Your task to perform on an android device: Open settings on Google Maps Image 0: 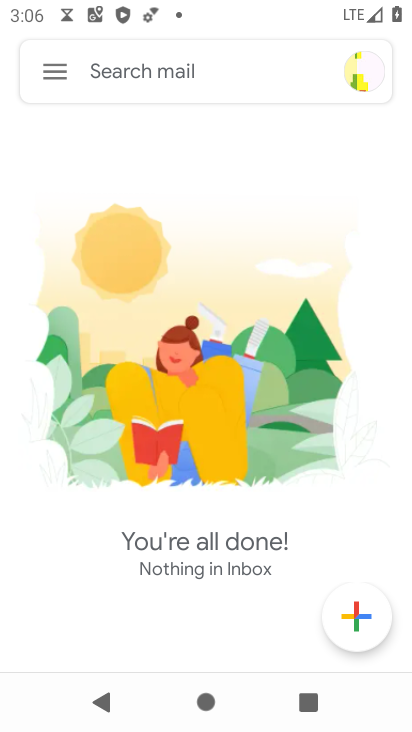
Step 0: press home button
Your task to perform on an android device: Open settings on Google Maps Image 1: 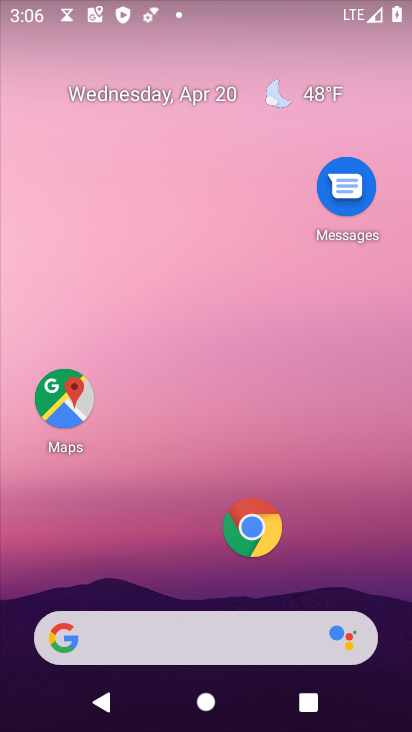
Step 1: drag from (140, 643) to (340, 18)
Your task to perform on an android device: Open settings on Google Maps Image 2: 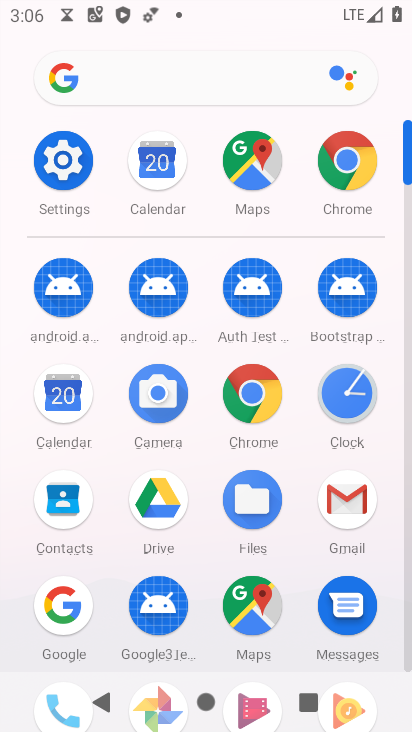
Step 2: click (254, 177)
Your task to perform on an android device: Open settings on Google Maps Image 3: 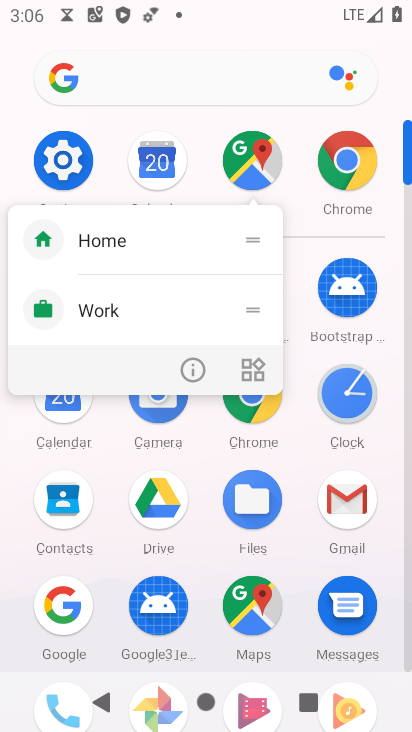
Step 3: click (250, 159)
Your task to perform on an android device: Open settings on Google Maps Image 4: 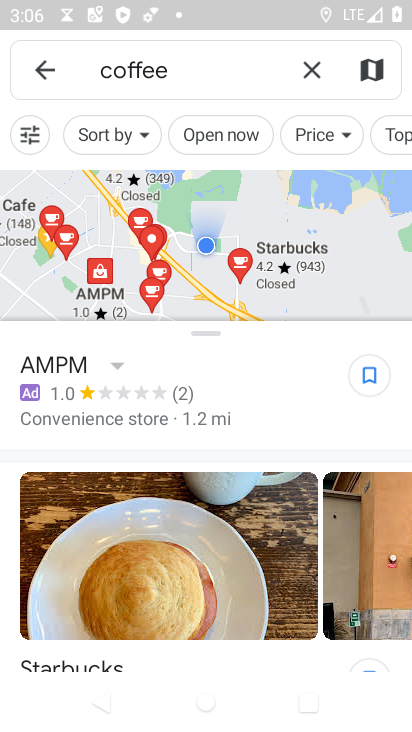
Step 4: click (48, 66)
Your task to perform on an android device: Open settings on Google Maps Image 5: 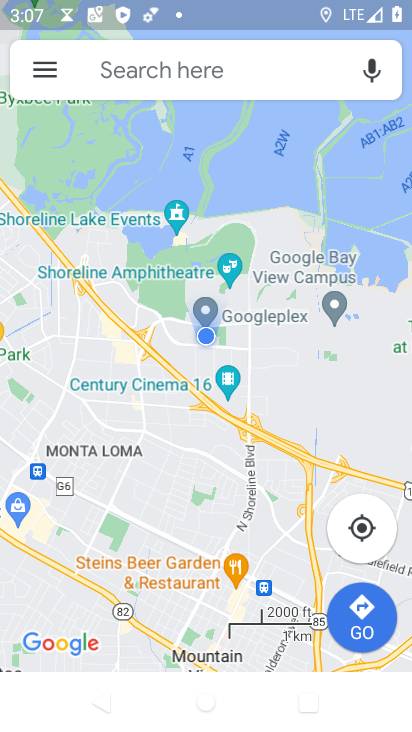
Step 5: click (47, 69)
Your task to perform on an android device: Open settings on Google Maps Image 6: 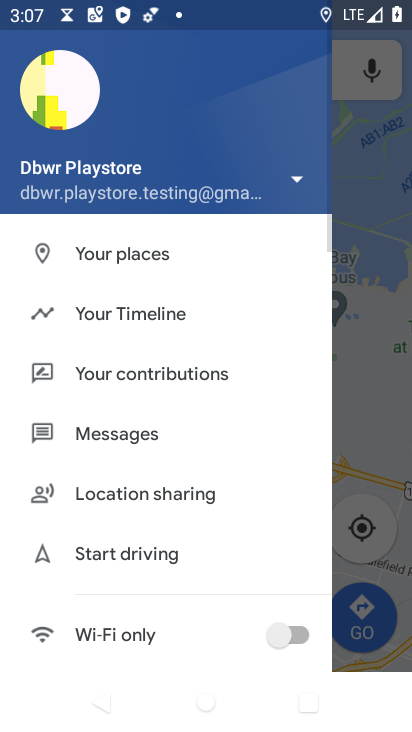
Step 6: drag from (142, 603) to (279, 187)
Your task to perform on an android device: Open settings on Google Maps Image 7: 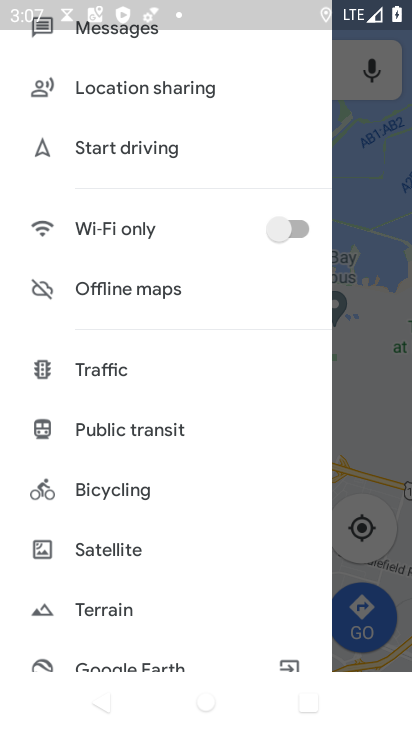
Step 7: drag from (158, 600) to (255, 199)
Your task to perform on an android device: Open settings on Google Maps Image 8: 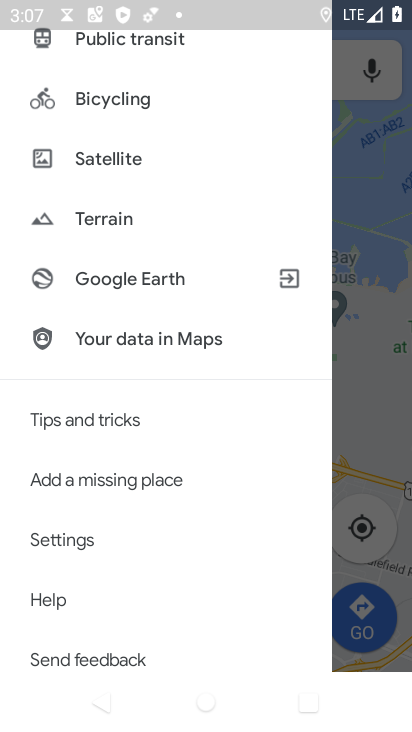
Step 8: click (76, 542)
Your task to perform on an android device: Open settings on Google Maps Image 9: 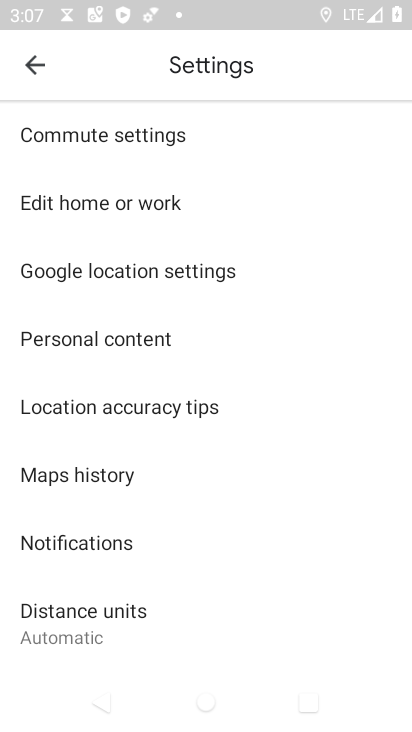
Step 9: task complete